Your task to perform on an android device: toggle notification dots Image 0: 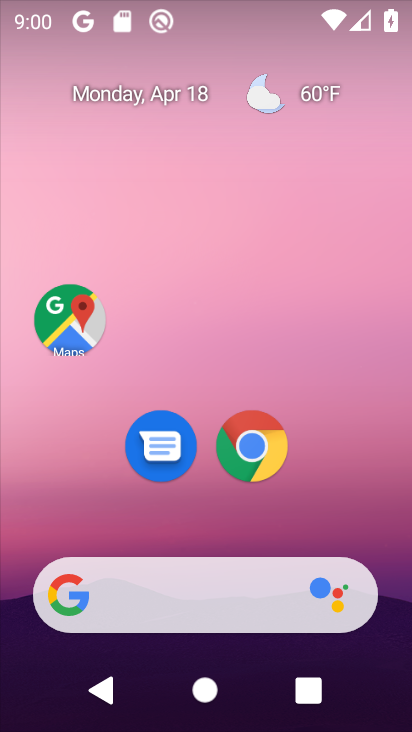
Step 0: drag from (356, 499) to (337, 100)
Your task to perform on an android device: toggle notification dots Image 1: 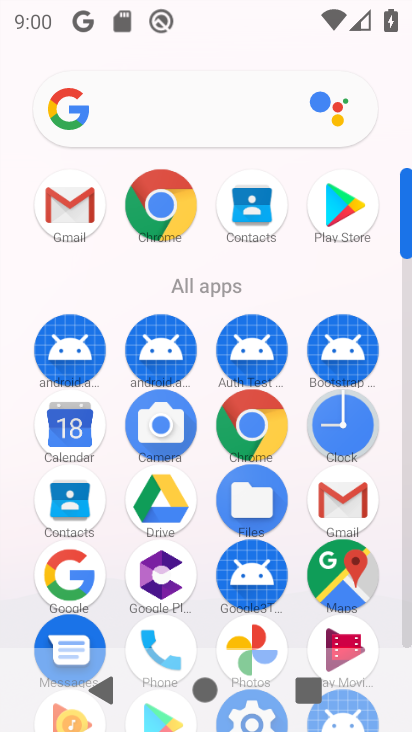
Step 1: drag from (388, 493) to (381, 248)
Your task to perform on an android device: toggle notification dots Image 2: 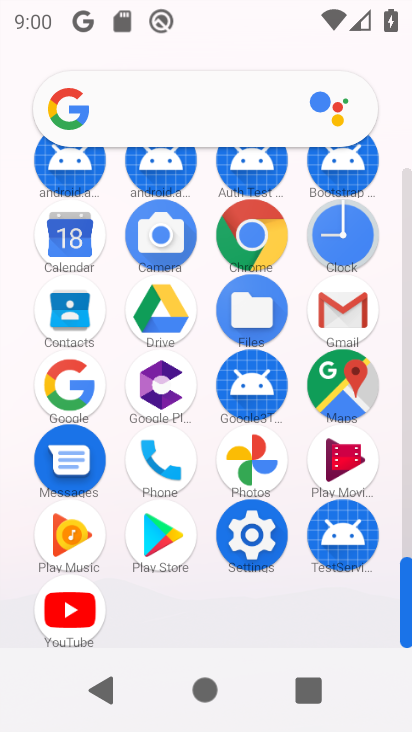
Step 2: click (244, 547)
Your task to perform on an android device: toggle notification dots Image 3: 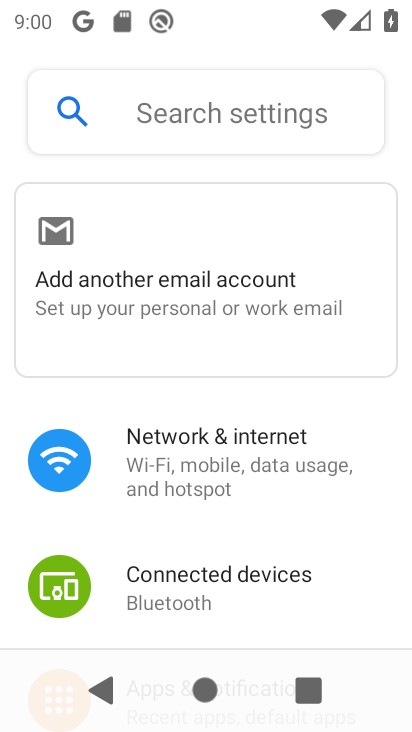
Step 3: drag from (371, 586) to (371, 383)
Your task to perform on an android device: toggle notification dots Image 4: 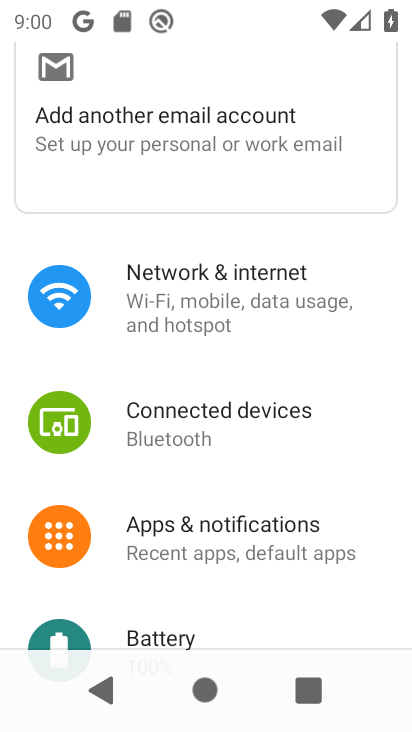
Step 4: drag from (376, 593) to (372, 422)
Your task to perform on an android device: toggle notification dots Image 5: 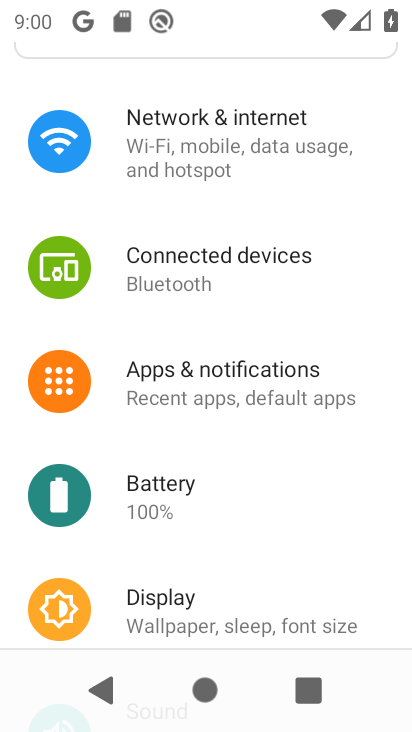
Step 5: click (231, 394)
Your task to perform on an android device: toggle notification dots Image 6: 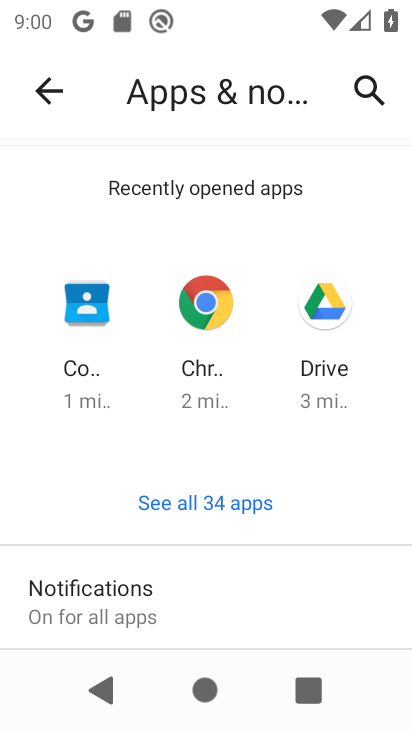
Step 6: drag from (379, 586) to (359, 420)
Your task to perform on an android device: toggle notification dots Image 7: 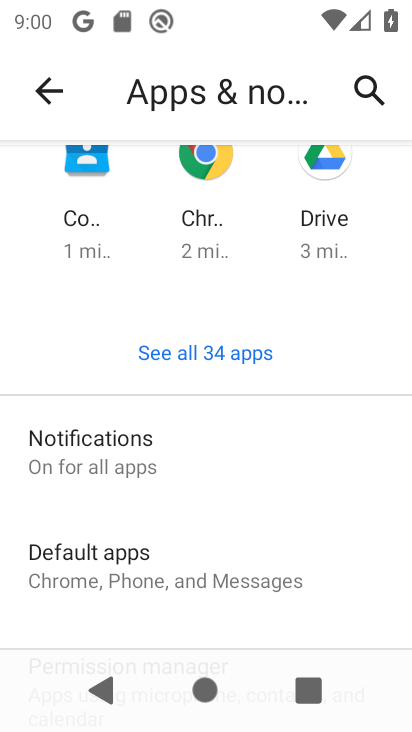
Step 7: click (138, 467)
Your task to perform on an android device: toggle notification dots Image 8: 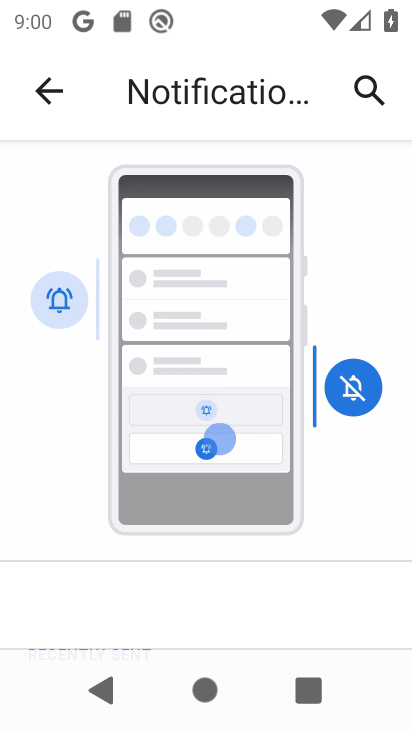
Step 8: drag from (386, 593) to (380, 415)
Your task to perform on an android device: toggle notification dots Image 9: 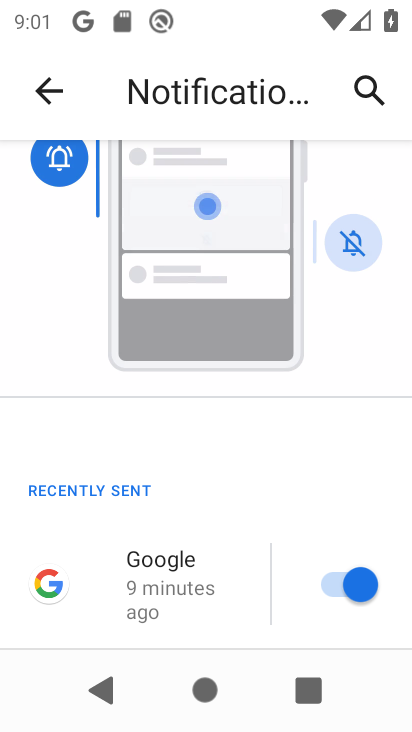
Step 9: drag from (386, 617) to (374, 395)
Your task to perform on an android device: toggle notification dots Image 10: 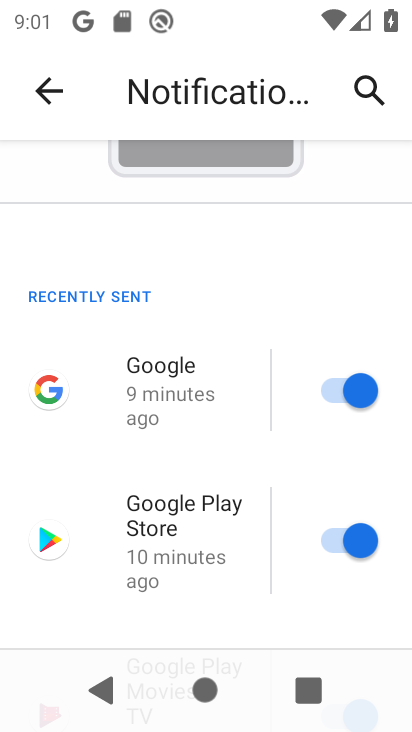
Step 10: drag from (386, 626) to (387, 377)
Your task to perform on an android device: toggle notification dots Image 11: 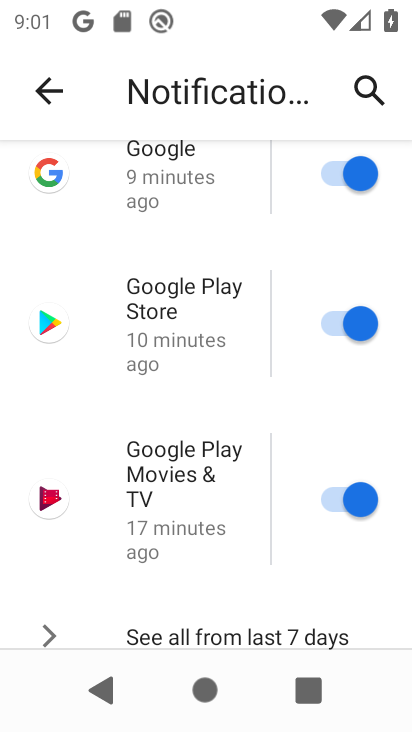
Step 11: drag from (396, 620) to (406, 354)
Your task to perform on an android device: toggle notification dots Image 12: 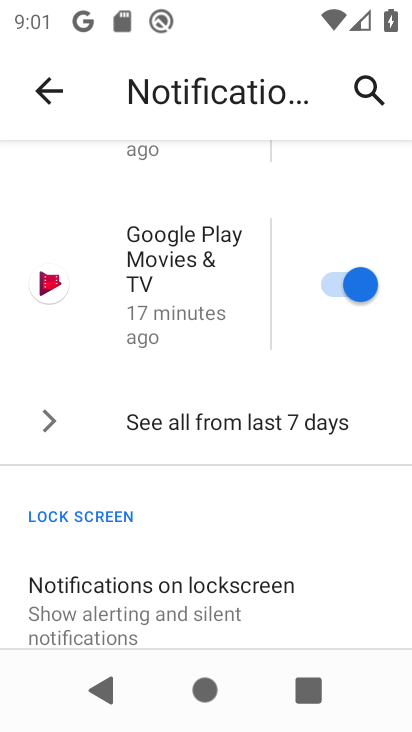
Step 12: drag from (377, 593) to (375, 385)
Your task to perform on an android device: toggle notification dots Image 13: 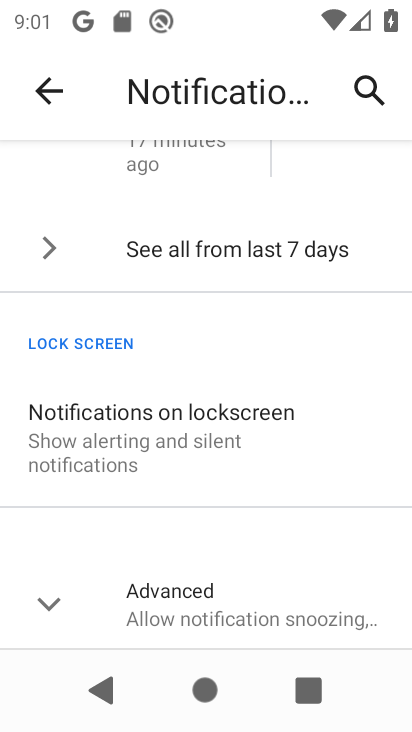
Step 13: click (276, 614)
Your task to perform on an android device: toggle notification dots Image 14: 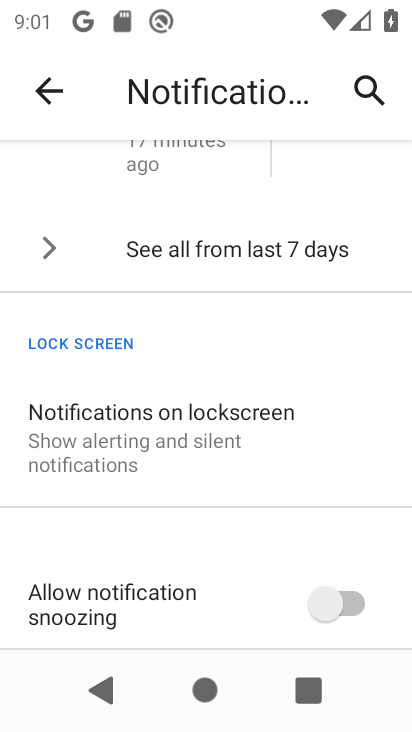
Step 14: drag from (383, 615) to (386, 391)
Your task to perform on an android device: toggle notification dots Image 15: 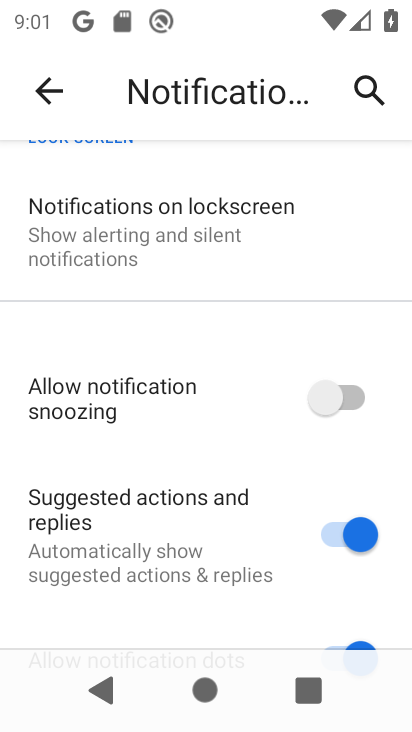
Step 15: drag from (393, 593) to (396, 422)
Your task to perform on an android device: toggle notification dots Image 16: 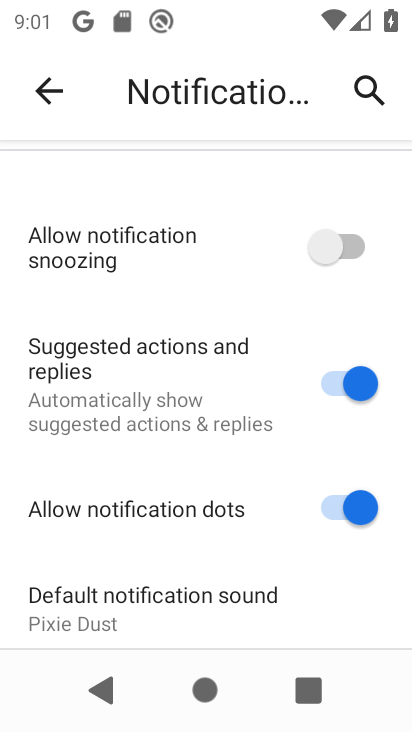
Step 16: drag from (393, 624) to (395, 447)
Your task to perform on an android device: toggle notification dots Image 17: 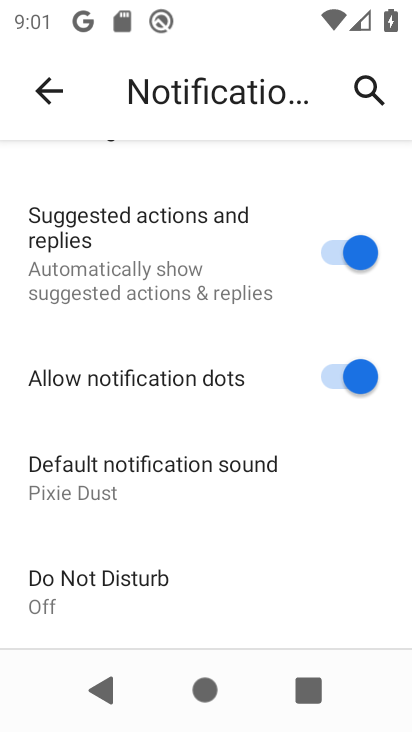
Step 17: click (353, 382)
Your task to perform on an android device: toggle notification dots Image 18: 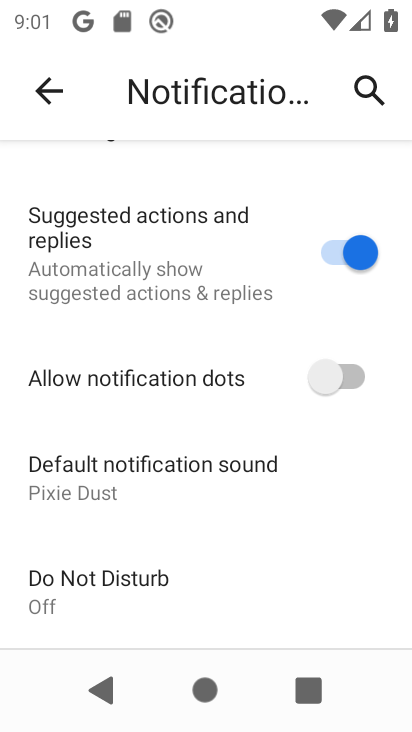
Step 18: task complete